Your task to perform on an android device: Check the news Image 0: 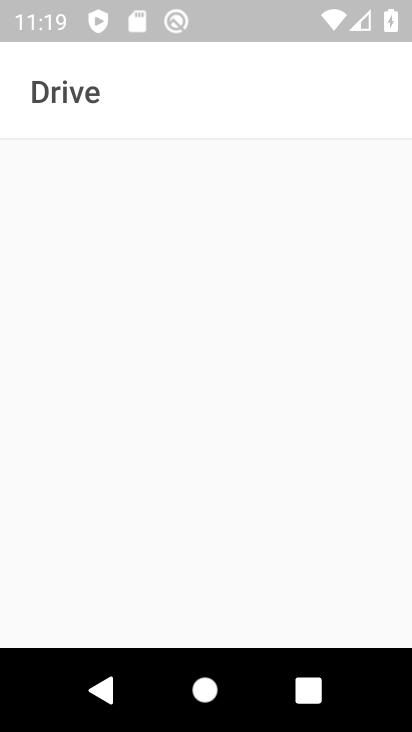
Step 0: press home button
Your task to perform on an android device: Check the news Image 1: 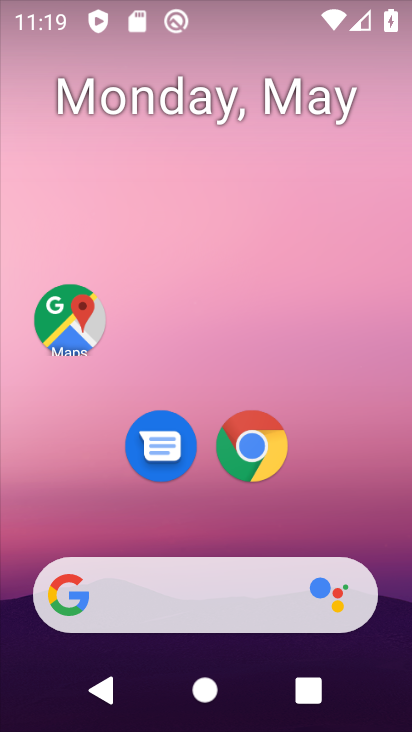
Step 1: drag from (174, 557) to (192, 197)
Your task to perform on an android device: Check the news Image 2: 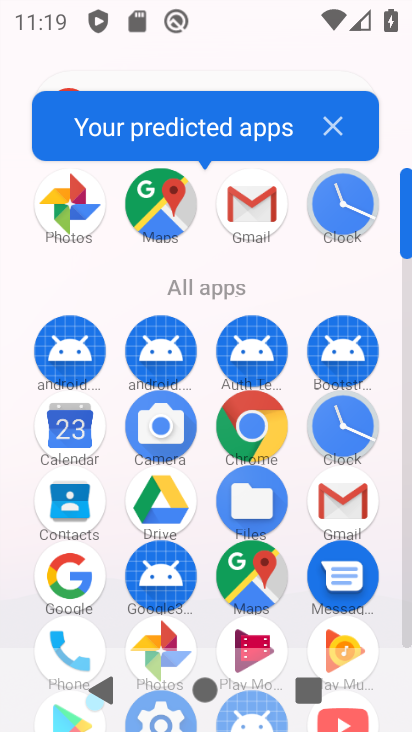
Step 2: click (79, 578)
Your task to perform on an android device: Check the news Image 3: 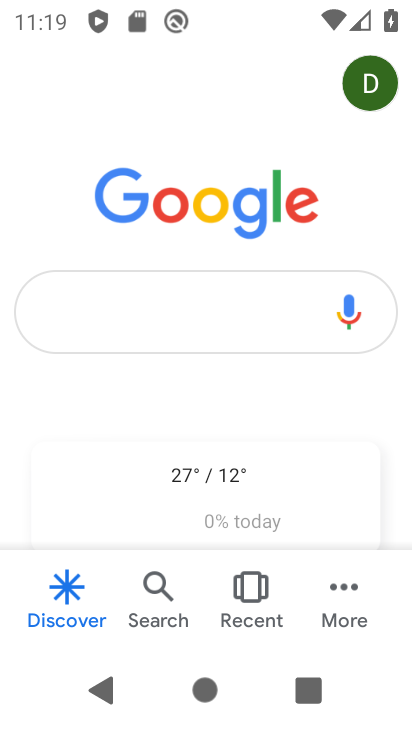
Step 3: click (132, 302)
Your task to perform on an android device: Check the news Image 4: 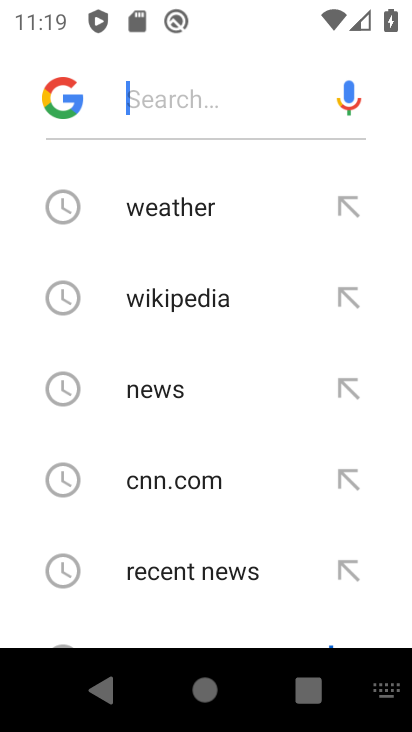
Step 4: click (160, 386)
Your task to perform on an android device: Check the news Image 5: 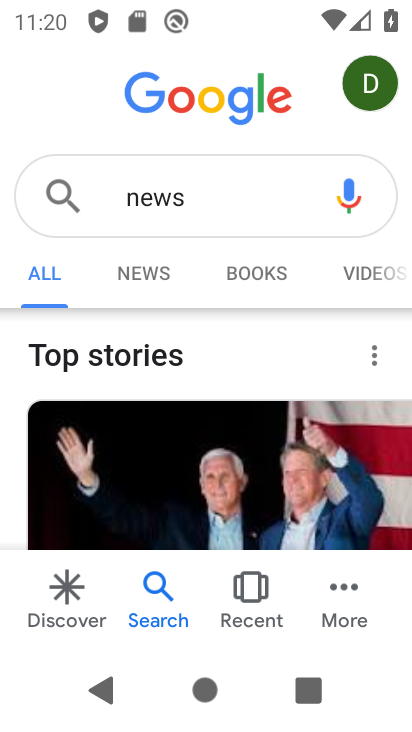
Step 5: task complete